Your task to perform on an android device: Open calendar and show me the third week of next month Image 0: 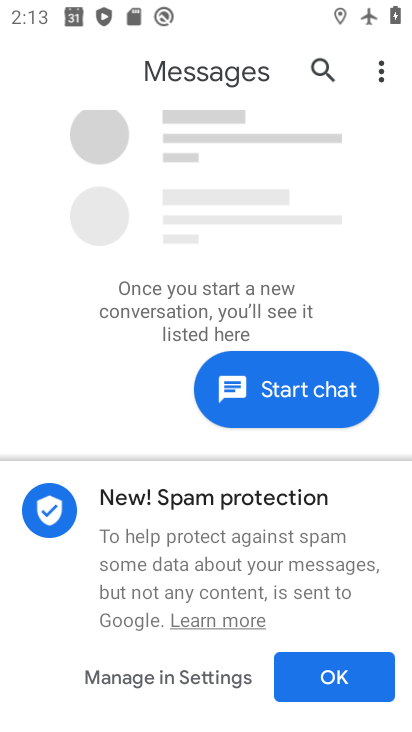
Step 0: press home button
Your task to perform on an android device: Open calendar and show me the third week of next month Image 1: 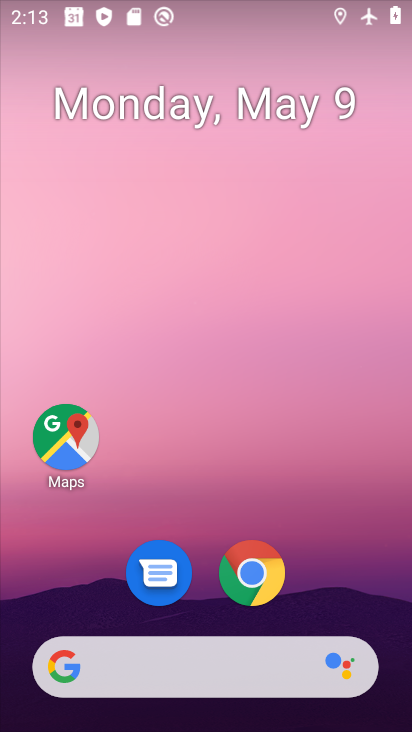
Step 1: drag from (388, 624) to (197, 175)
Your task to perform on an android device: Open calendar and show me the third week of next month Image 2: 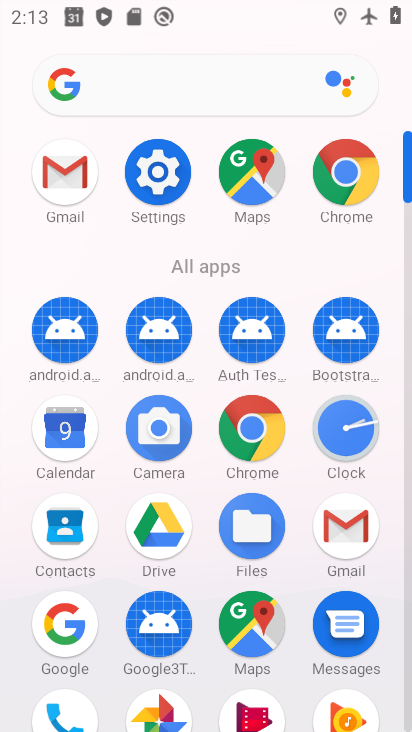
Step 2: click (73, 432)
Your task to perform on an android device: Open calendar and show me the third week of next month Image 3: 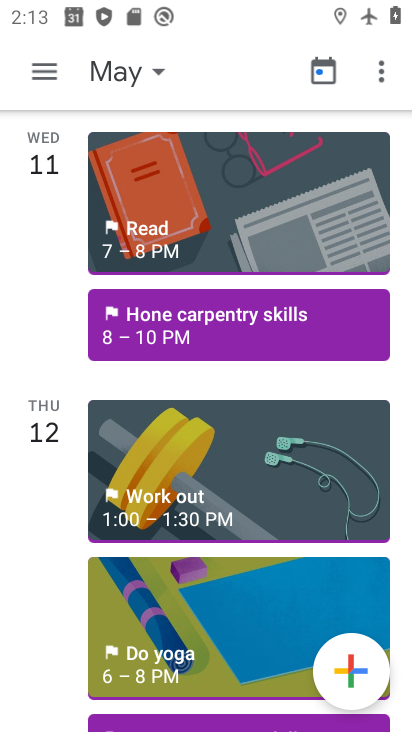
Step 3: click (161, 70)
Your task to perform on an android device: Open calendar and show me the third week of next month Image 4: 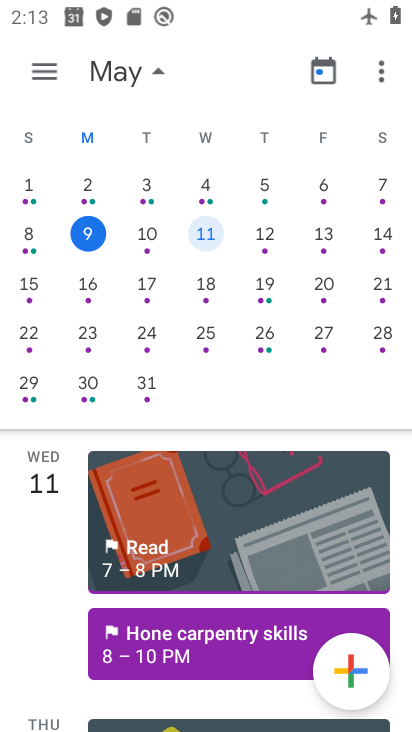
Step 4: drag from (211, 304) to (21, 314)
Your task to perform on an android device: Open calendar and show me the third week of next month Image 5: 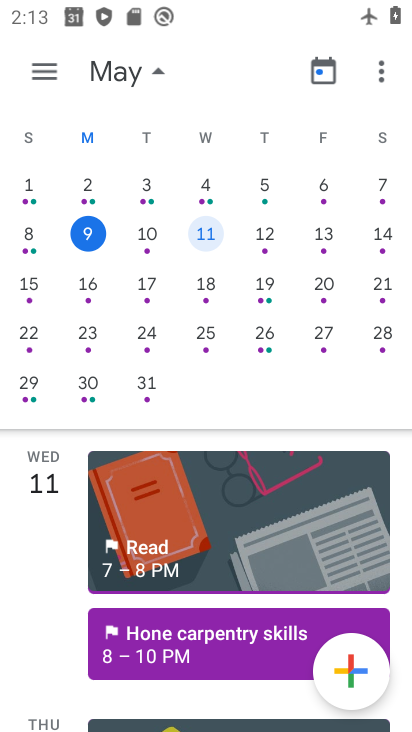
Step 5: drag from (196, 268) to (23, 340)
Your task to perform on an android device: Open calendar and show me the third week of next month Image 6: 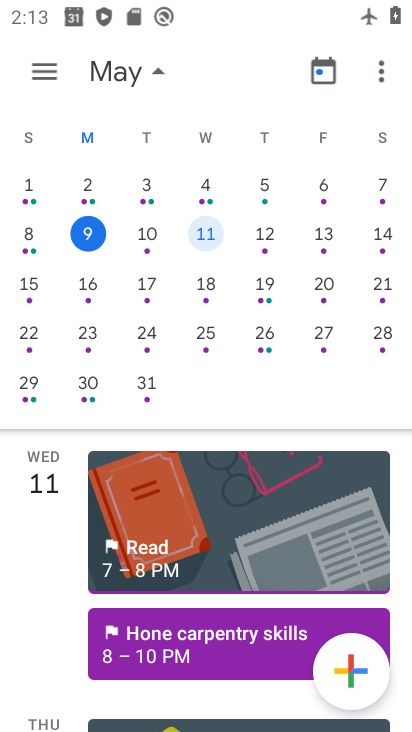
Step 6: drag from (222, 276) to (31, 280)
Your task to perform on an android device: Open calendar and show me the third week of next month Image 7: 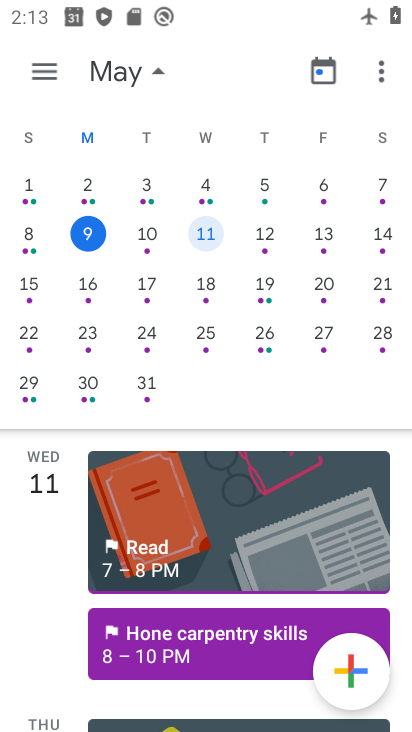
Step 7: drag from (212, 259) to (38, 306)
Your task to perform on an android device: Open calendar and show me the third week of next month Image 8: 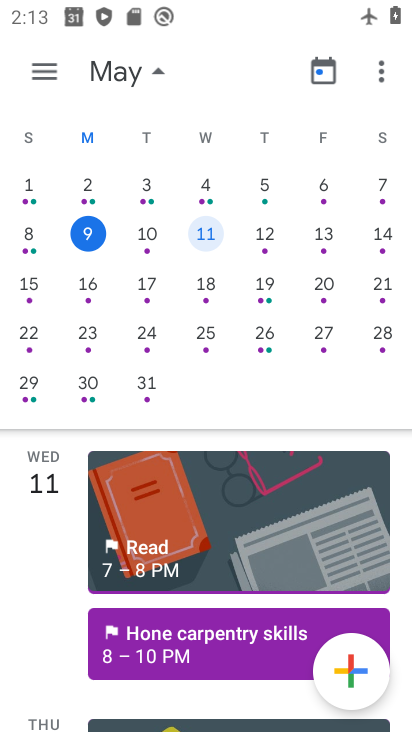
Step 8: drag from (146, 299) to (6, 331)
Your task to perform on an android device: Open calendar and show me the third week of next month Image 9: 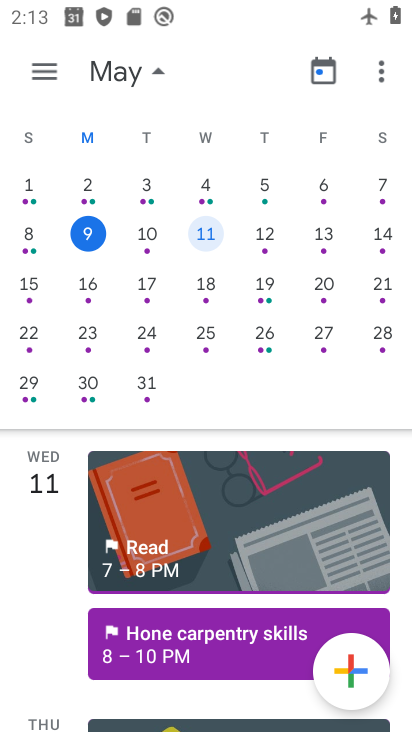
Step 9: drag from (219, 266) to (3, 294)
Your task to perform on an android device: Open calendar and show me the third week of next month Image 10: 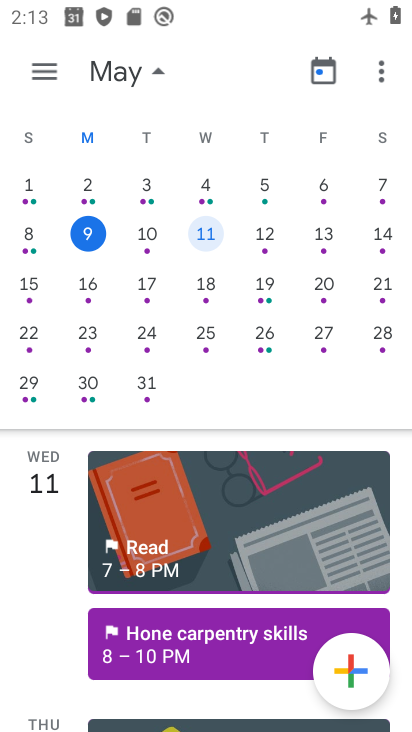
Step 10: drag from (229, 257) to (0, 320)
Your task to perform on an android device: Open calendar and show me the third week of next month Image 11: 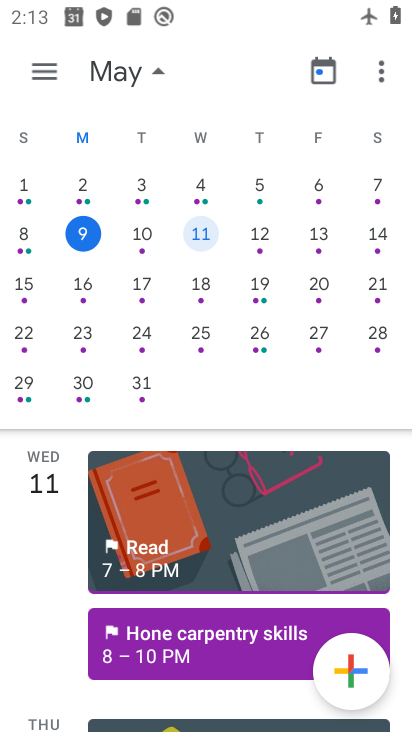
Step 11: drag from (323, 309) to (36, 353)
Your task to perform on an android device: Open calendar and show me the third week of next month Image 12: 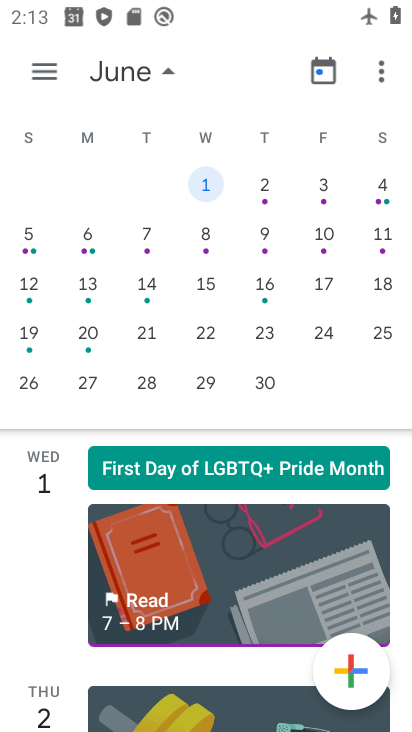
Step 12: click (4, 328)
Your task to perform on an android device: Open calendar and show me the third week of next month Image 13: 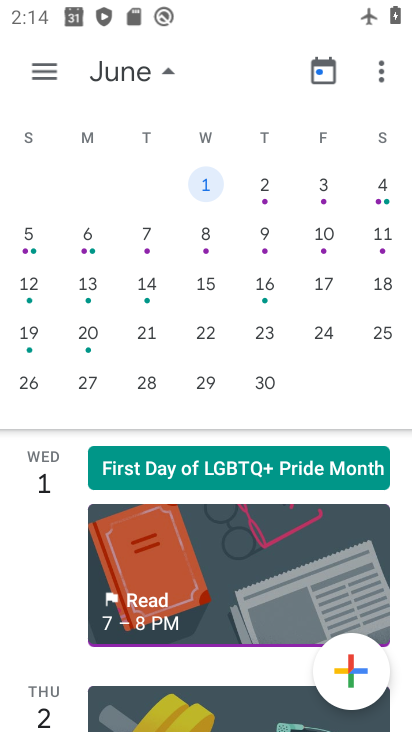
Step 13: click (197, 276)
Your task to perform on an android device: Open calendar and show me the third week of next month Image 14: 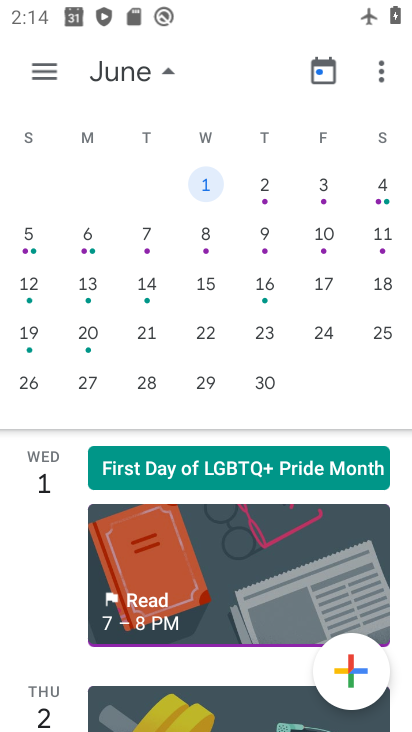
Step 14: click (199, 276)
Your task to perform on an android device: Open calendar and show me the third week of next month Image 15: 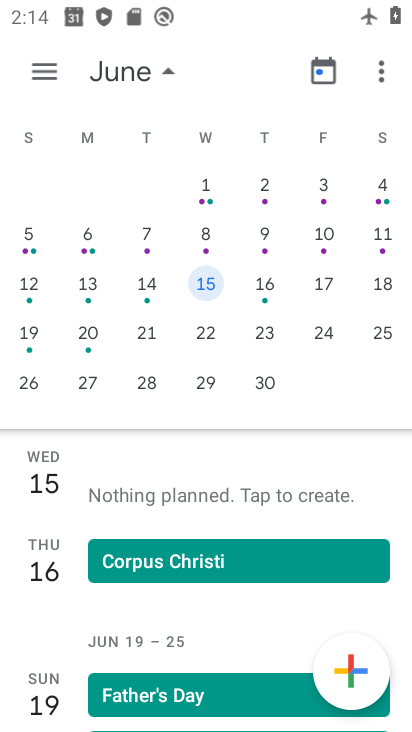
Step 15: click (200, 276)
Your task to perform on an android device: Open calendar and show me the third week of next month Image 16: 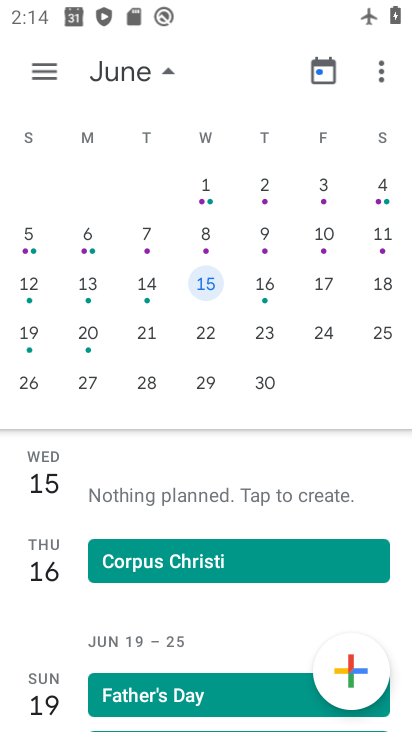
Step 16: click (200, 276)
Your task to perform on an android device: Open calendar and show me the third week of next month Image 17: 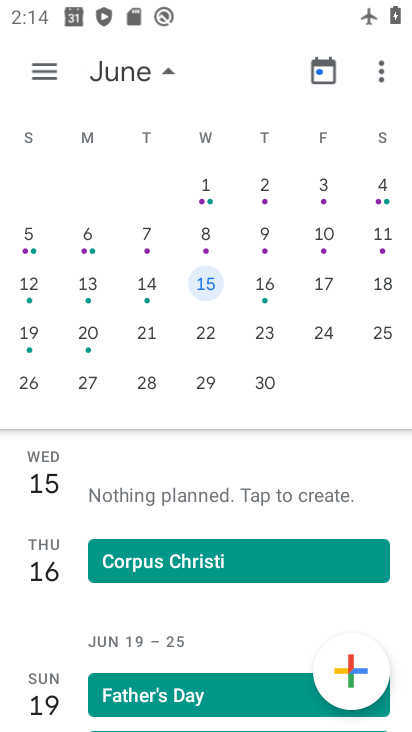
Step 17: task complete